Your task to perform on an android device: check battery use Image 0: 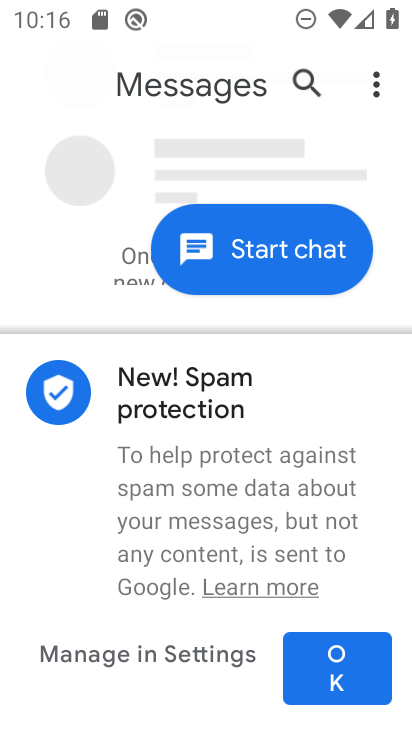
Step 0: press home button
Your task to perform on an android device: check battery use Image 1: 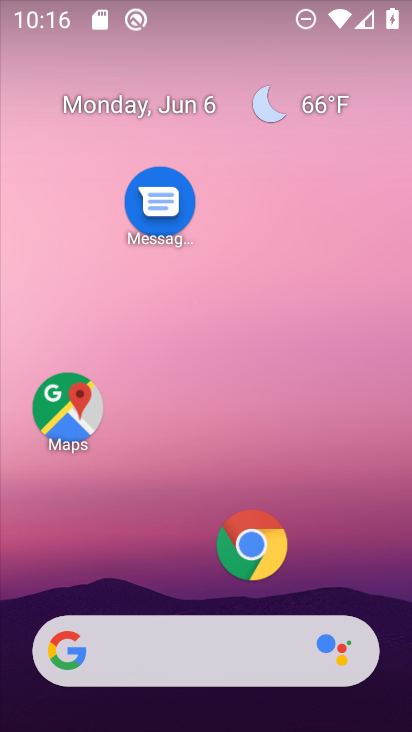
Step 1: click (178, 503)
Your task to perform on an android device: check battery use Image 2: 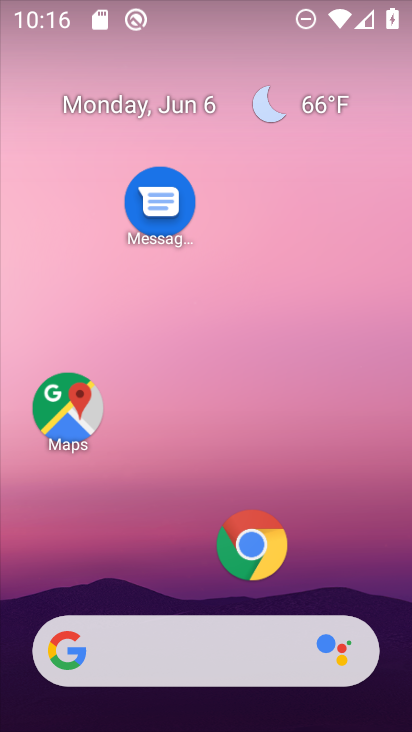
Step 2: drag from (238, 318) to (405, 242)
Your task to perform on an android device: check battery use Image 3: 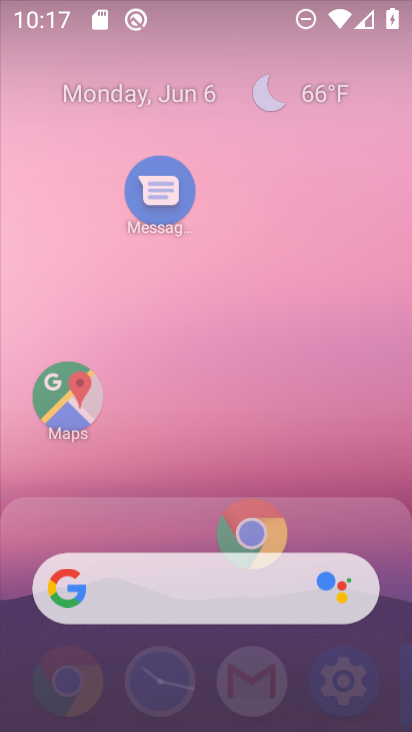
Step 3: drag from (181, 452) to (215, 84)
Your task to perform on an android device: check battery use Image 4: 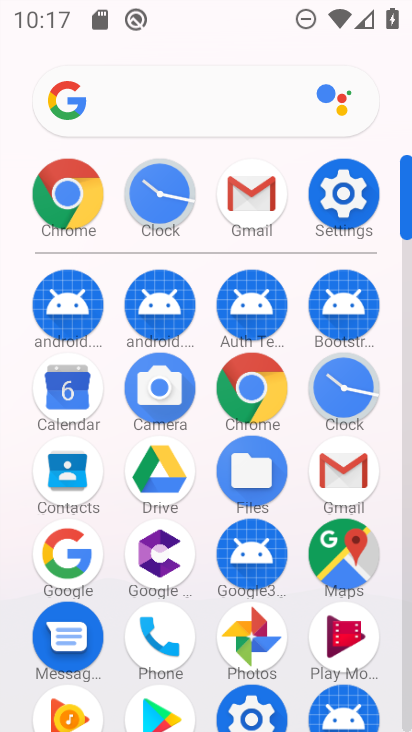
Step 4: click (348, 193)
Your task to perform on an android device: check battery use Image 5: 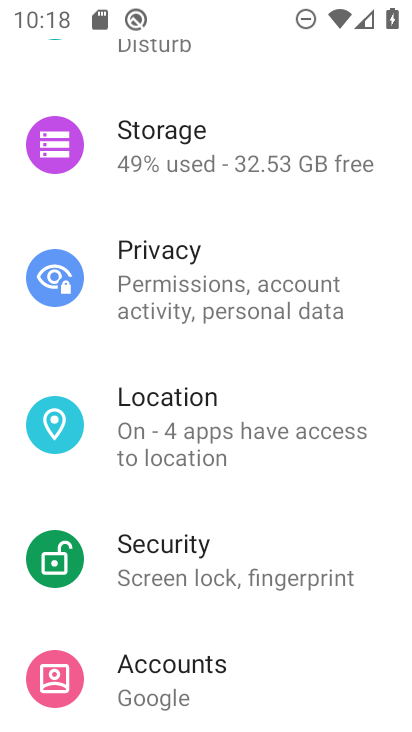
Step 5: drag from (263, 636) to (245, 225)
Your task to perform on an android device: check battery use Image 6: 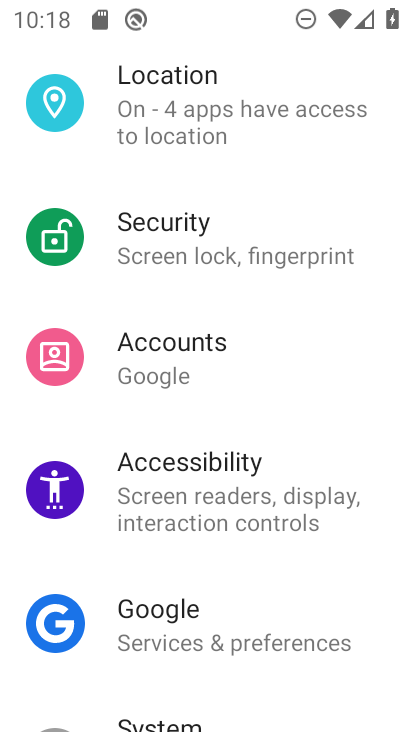
Step 6: drag from (196, 422) to (237, 219)
Your task to perform on an android device: check battery use Image 7: 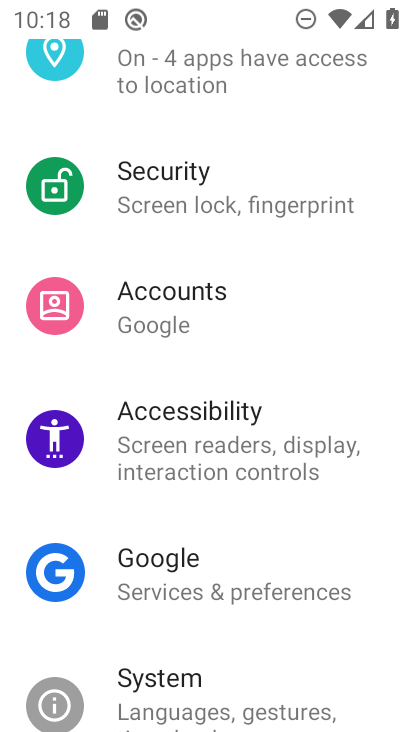
Step 7: drag from (236, 145) to (215, 726)
Your task to perform on an android device: check battery use Image 8: 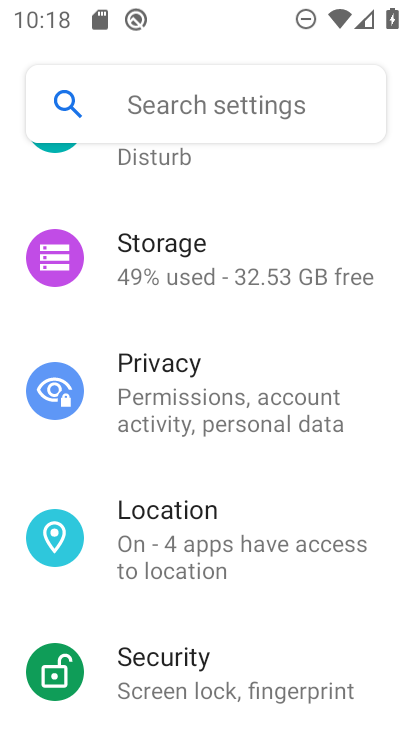
Step 8: drag from (197, 262) to (196, 637)
Your task to perform on an android device: check battery use Image 9: 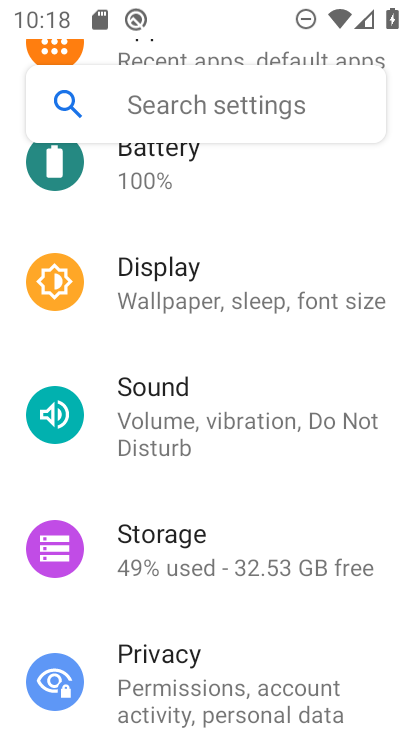
Step 9: click (186, 194)
Your task to perform on an android device: check battery use Image 10: 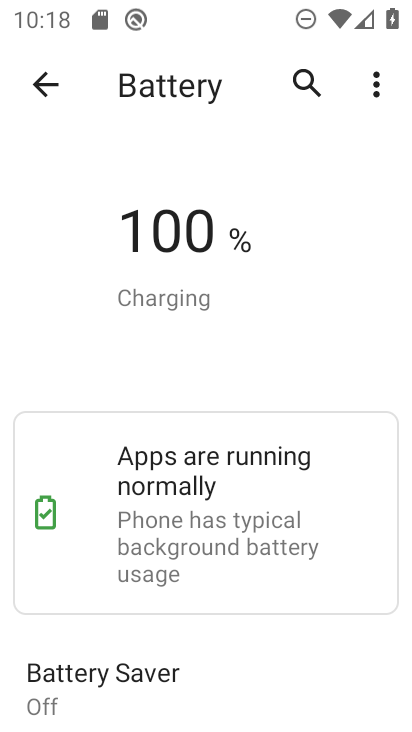
Step 10: task complete